Your task to perform on an android device: Open calendar and show me the fourth week of next month Image 0: 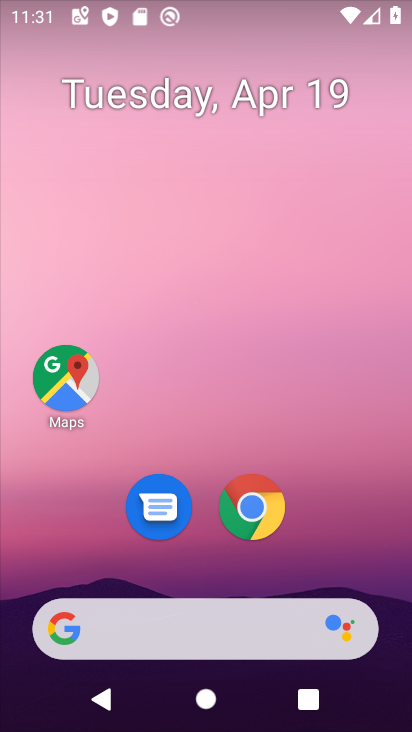
Step 0: drag from (369, 496) to (380, 96)
Your task to perform on an android device: Open calendar and show me the fourth week of next month Image 1: 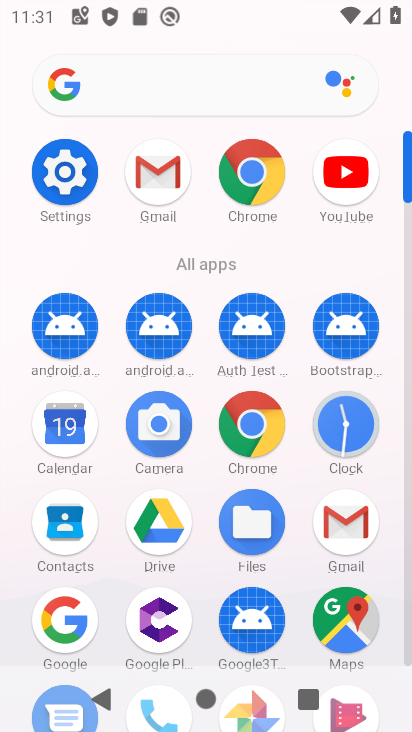
Step 1: click (59, 427)
Your task to perform on an android device: Open calendar and show me the fourth week of next month Image 2: 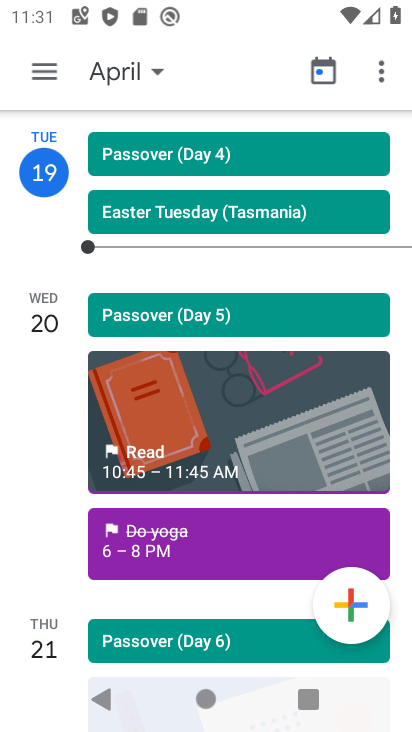
Step 2: click (119, 72)
Your task to perform on an android device: Open calendar and show me the fourth week of next month Image 3: 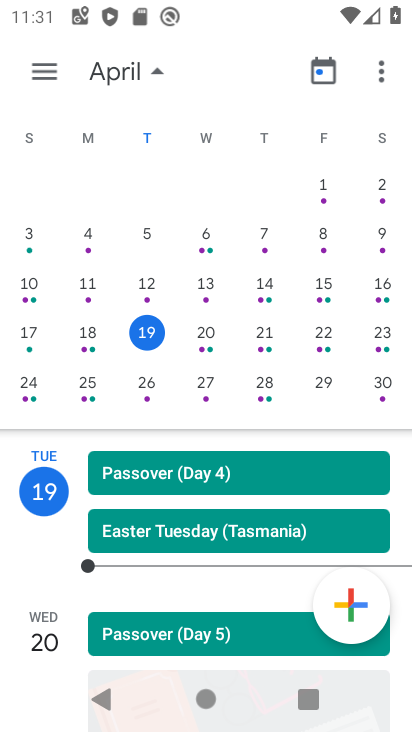
Step 3: drag from (375, 158) to (2, 179)
Your task to perform on an android device: Open calendar and show me the fourth week of next month Image 4: 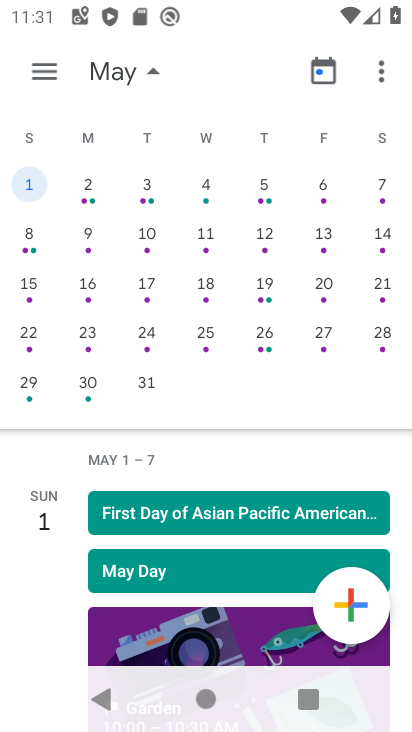
Step 4: click (32, 330)
Your task to perform on an android device: Open calendar and show me the fourth week of next month Image 5: 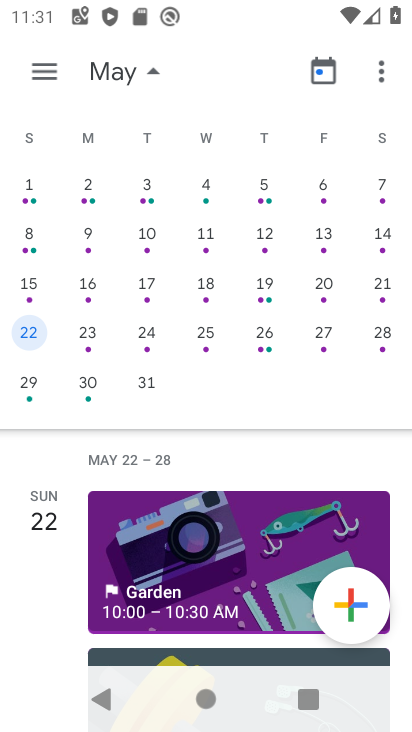
Step 5: task complete